Your task to perform on an android device: delete a single message in the gmail app Image 0: 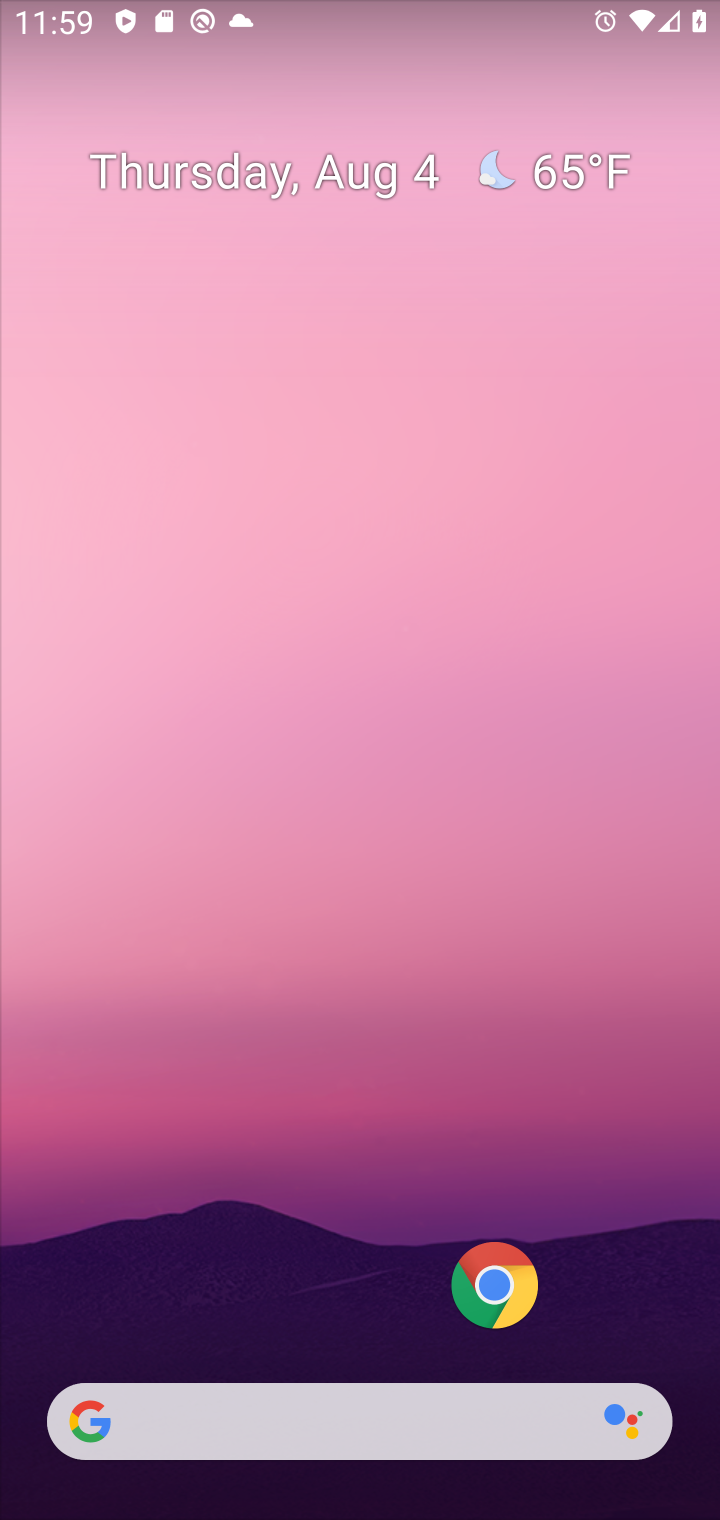
Step 0: drag from (330, 1103) to (426, 340)
Your task to perform on an android device: delete a single message in the gmail app Image 1: 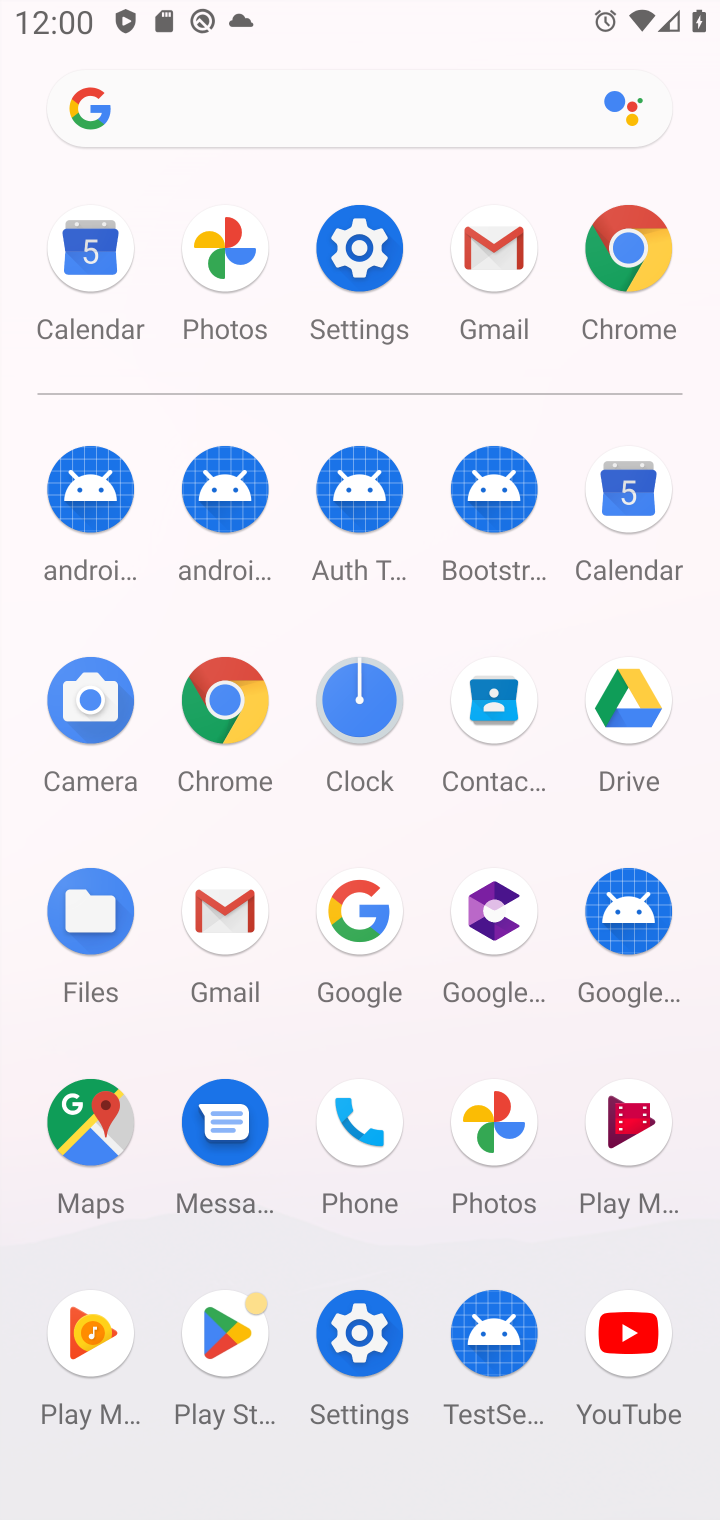
Step 1: click (237, 892)
Your task to perform on an android device: delete a single message in the gmail app Image 2: 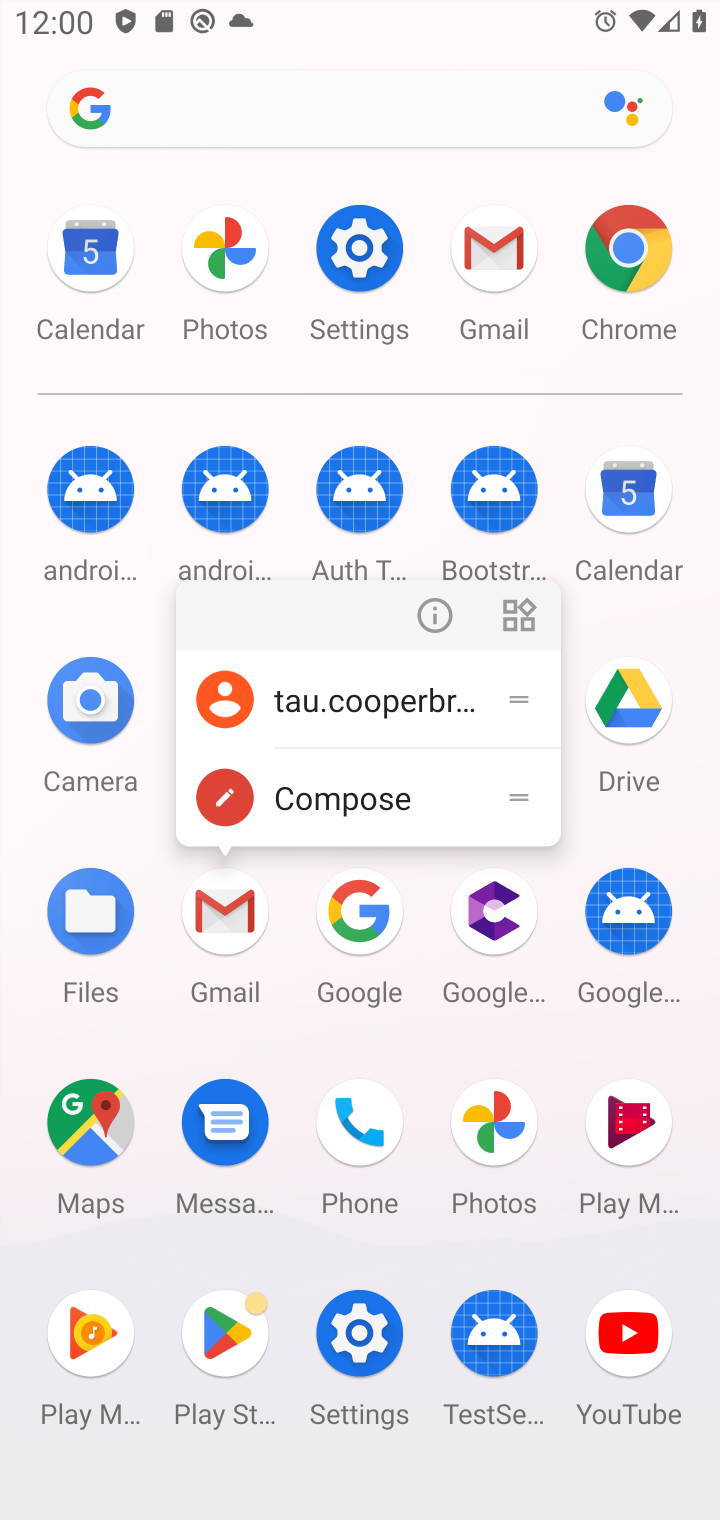
Step 2: click (210, 944)
Your task to perform on an android device: delete a single message in the gmail app Image 3: 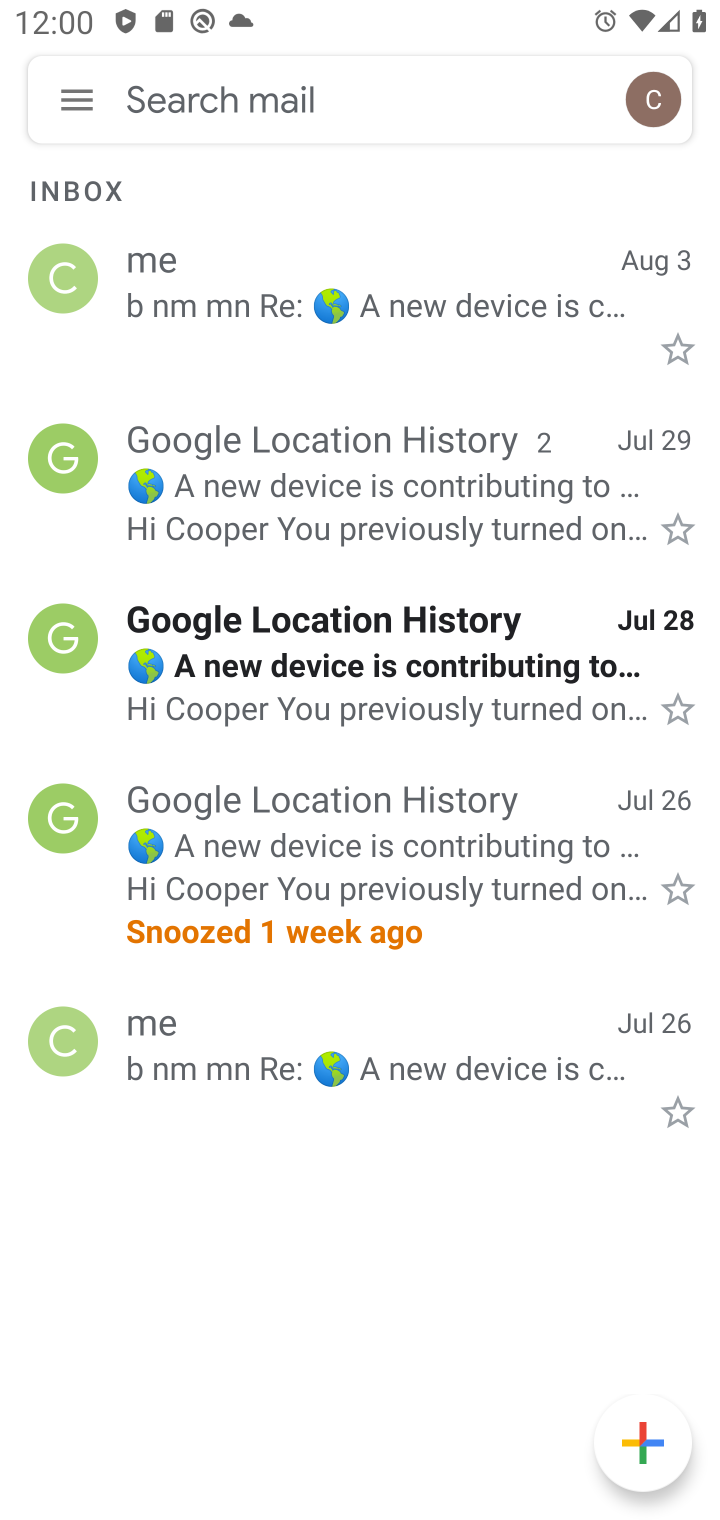
Step 3: click (305, 678)
Your task to perform on an android device: delete a single message in the gmail app Image 4: 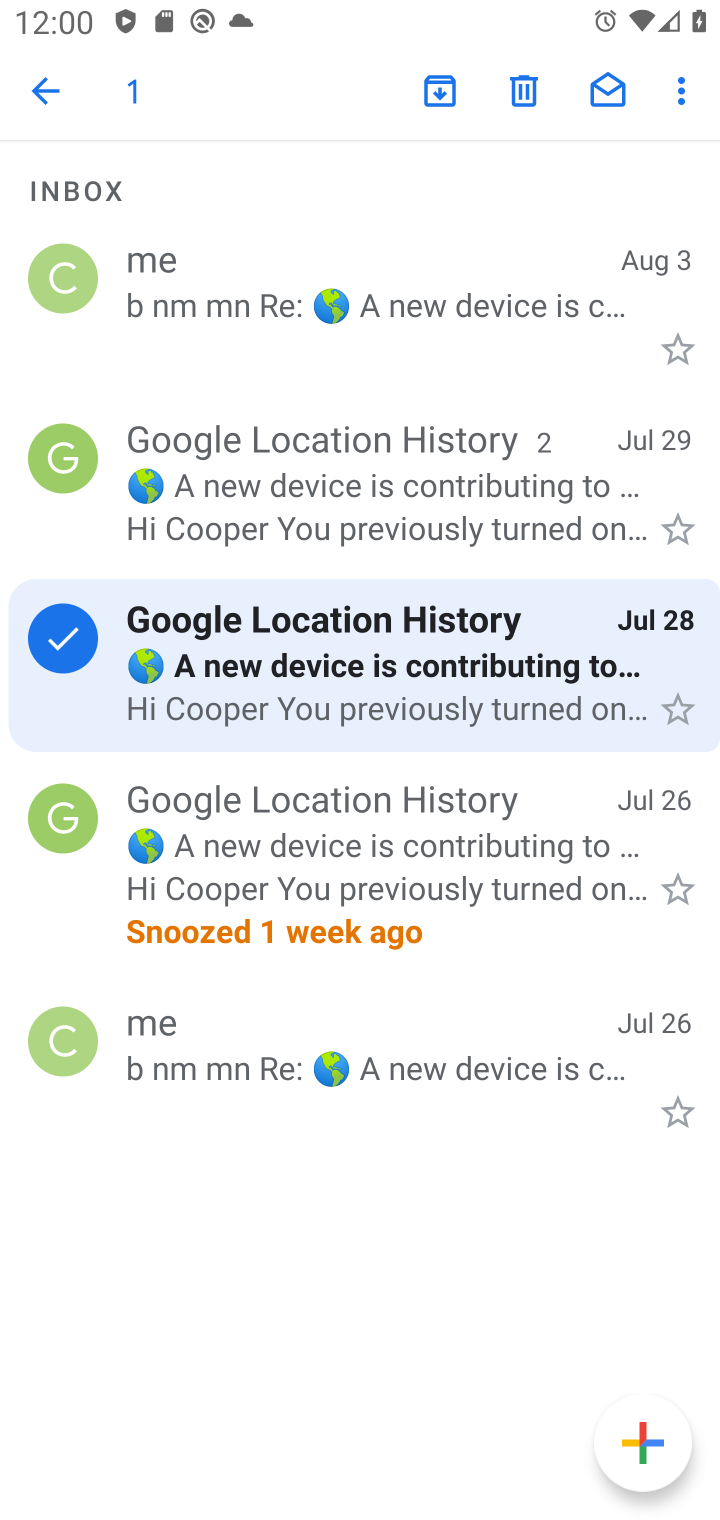
Step 4: click (535, 85)
Your task to perform on an android device: delete a single message in the gmail app Image 5: 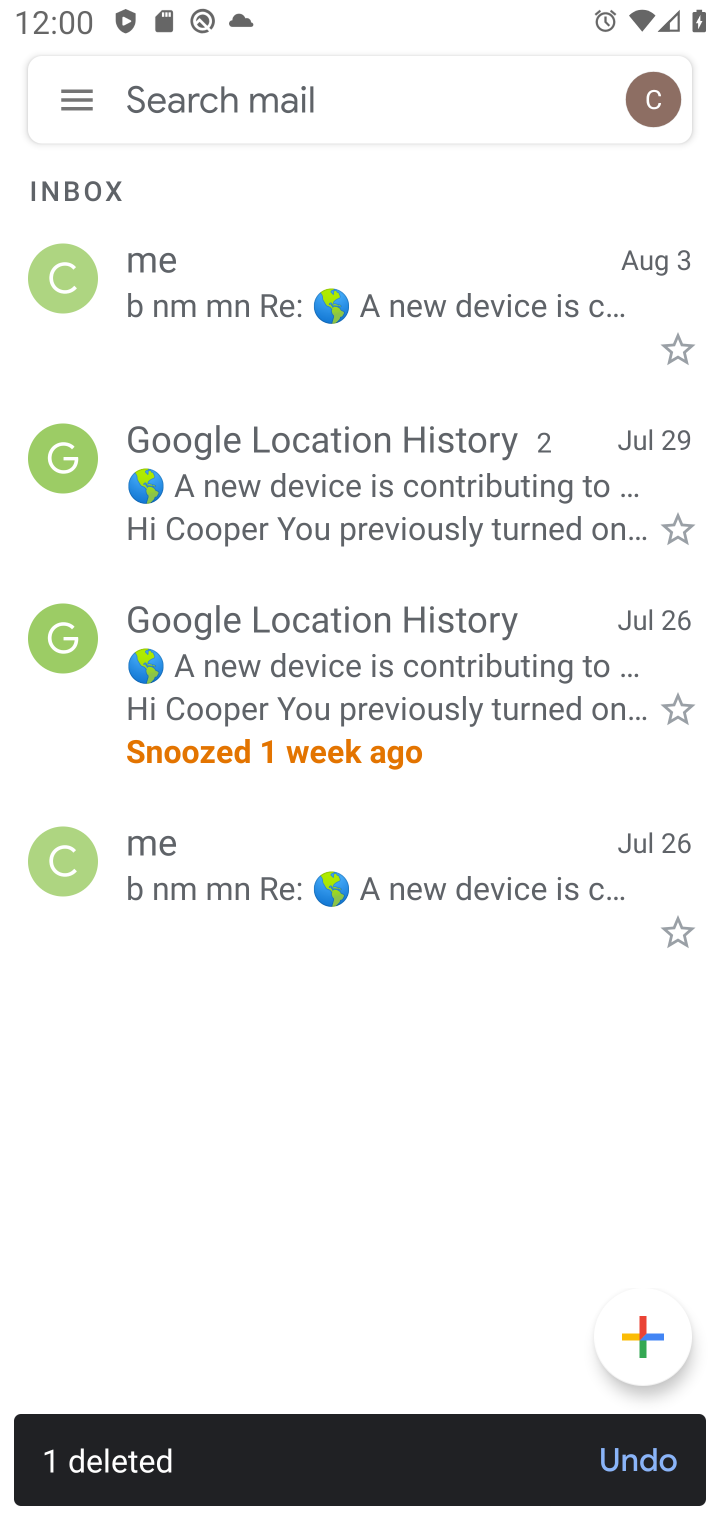
Step 5: task complete